Your task to perform on an android device: turn off notifications settings in the gmail app Image 0: 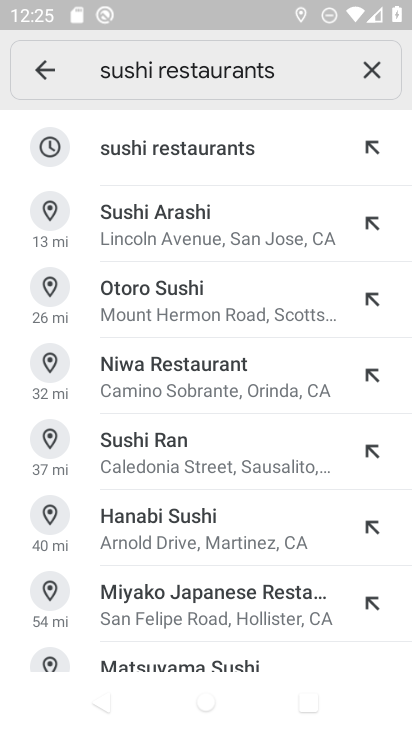
Step 0: press home button
Your task to perform on an android device: turn off notifications settings in the gmail app Image 1: 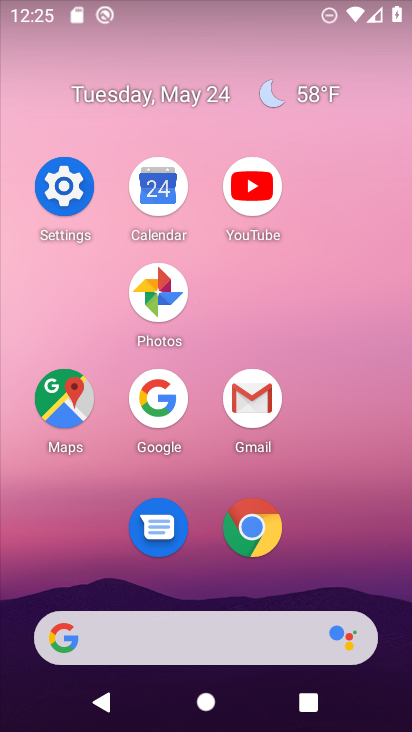
Step 1: click (280, 414)
Your task to perform on an android device: turn off notifications settings in the gmail app Image 2: 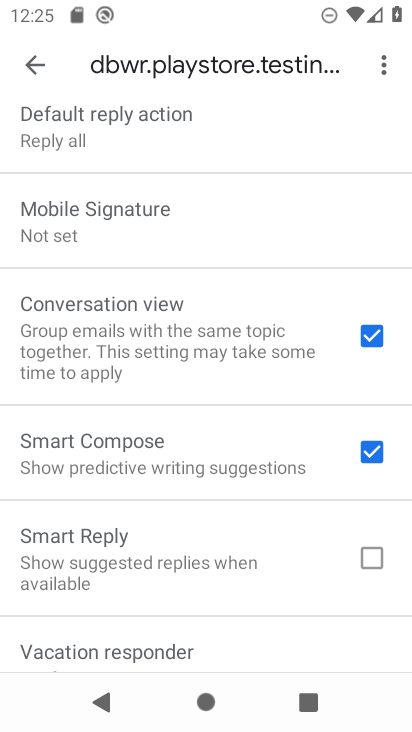
Step 2: drag from (248, 525) to (224, 208)
Your task to perform on an android device: turn off notifications settings in the gmail app Image 3: 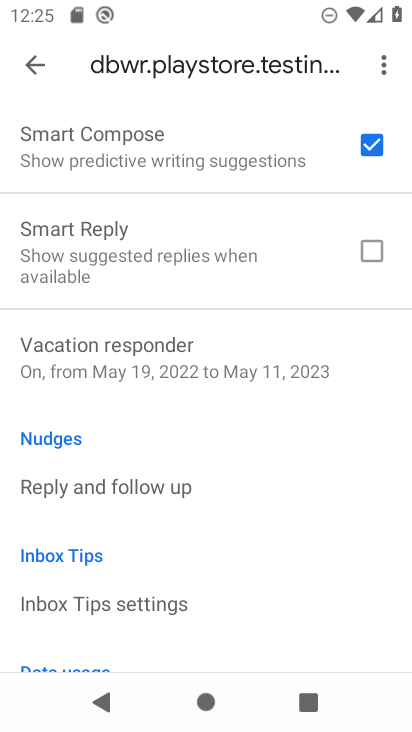
Step 3: drag from (248, 631) to (215, 288)
Your task to perform on an android device: turn off notifications settings in the gmail app Image 4: 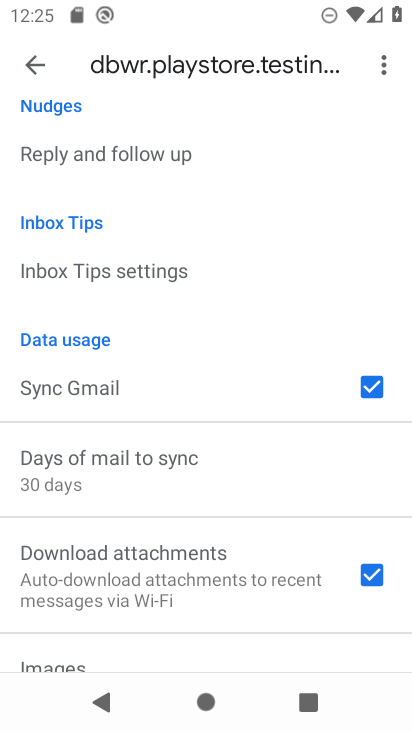
Step 4: drag from (270, 557) to (223, 274)
Your task to perform on an android device: turn off notifications settings in the gmail app Image 5: 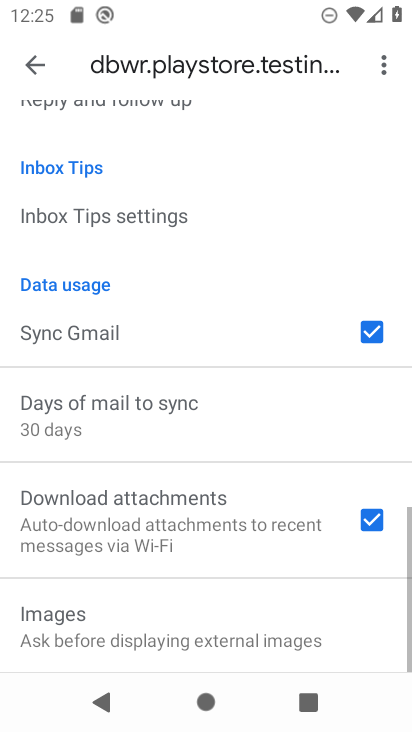
Step 5: drag from (215, 171) to (234, 460)
Your task to perform on an android device: turn off notifications settings in the gmail app Image 6: 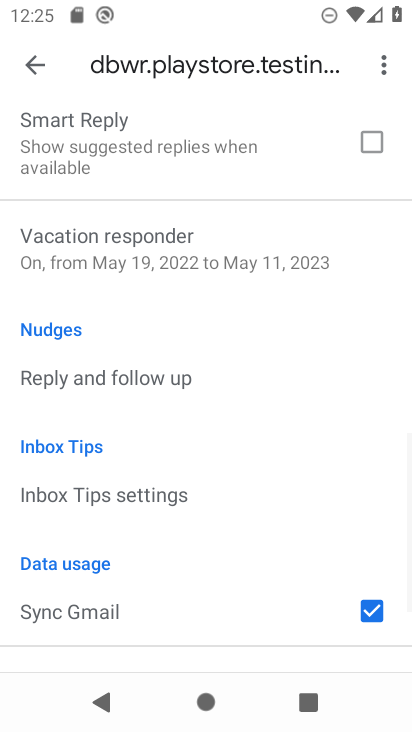
Step 6: drag from (225, 239) to (294, 616)
Your task to perform on an android device: turn off notifications settings in the gmail app Image 7: 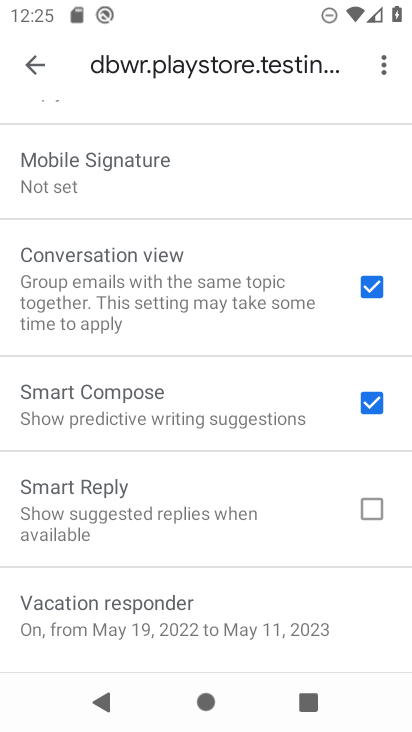
Step 7: drag from (212, 199) to (272, 550)
Your task to perform on an android device: turn off notifications settings in the gmail app Image 8: 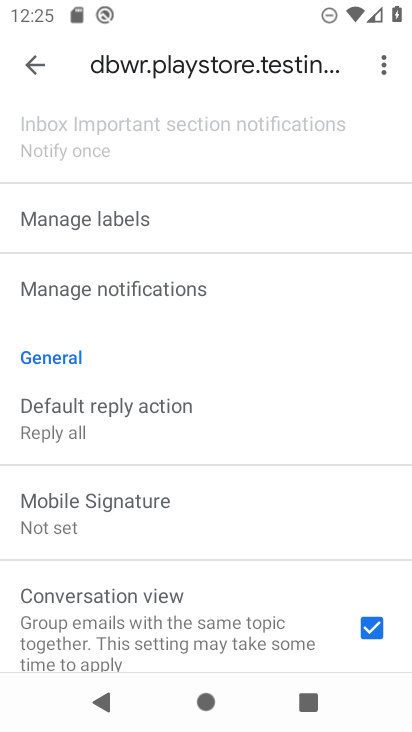
Step 8: drag from (231, 252) to (273, 419)
Your task to perform on an android device: turn off notifications settings in the gmail app Image 9: 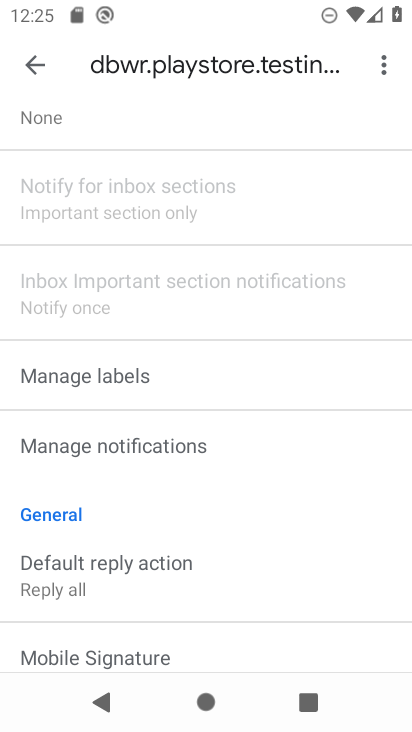
Step 9: click (220, 458)
Your task to perform on an android device: turn off notifications settings in the gmail app Image 10: 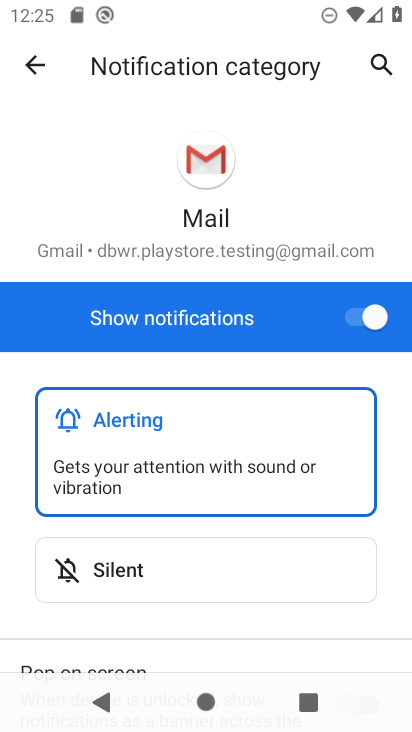
Step 10: click (347, 308)
Your task to perform on an android device: turn off notifications settings in the gmail app Image 11: 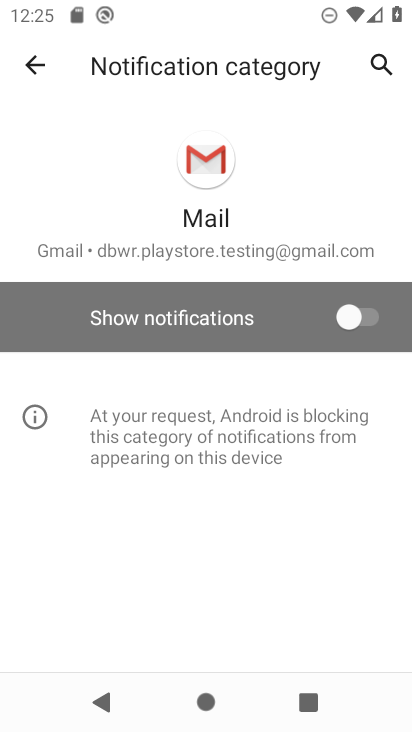
Step 11: task complete